Your task to perform on an android device: open sync settings in chrome Image 0: 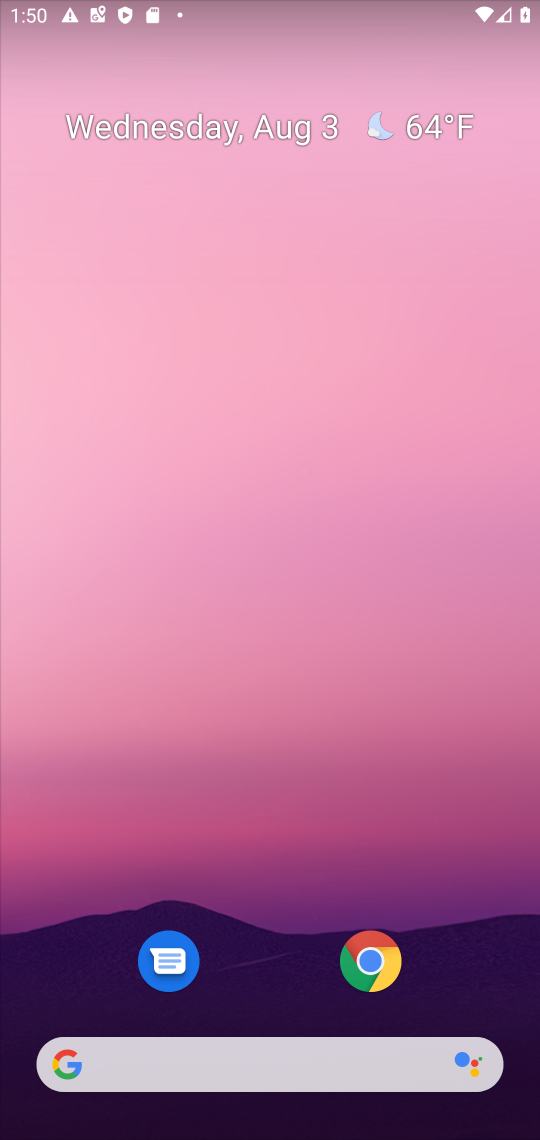
Step 0: click (373, 970)
Your task to perform on an android device: open sync settings in chrome Image 1: 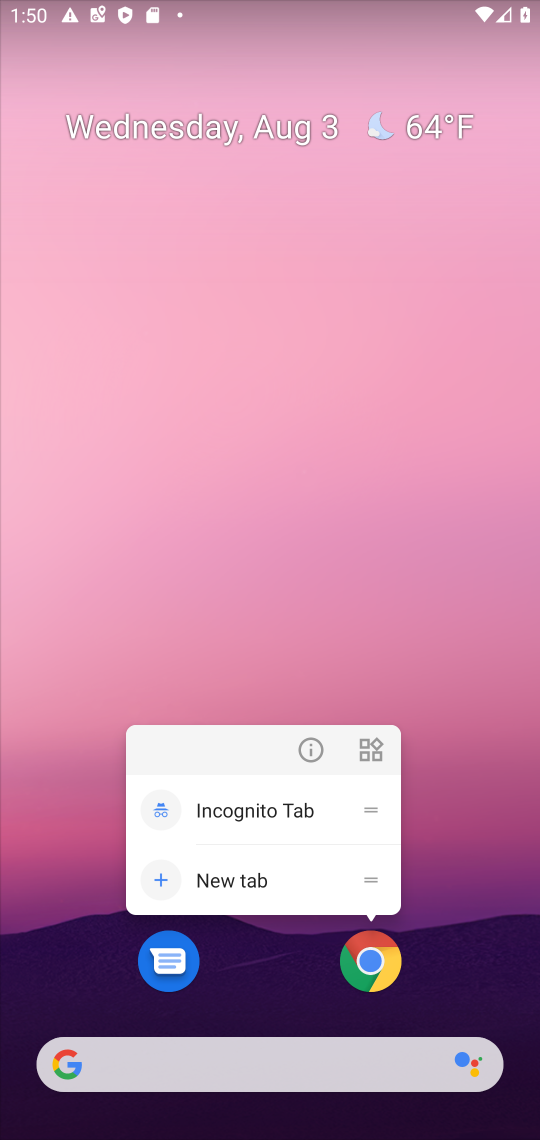
Step 1: click (373, 972)
Your task to perform on an android device: open sync settings in chrome Image 2: 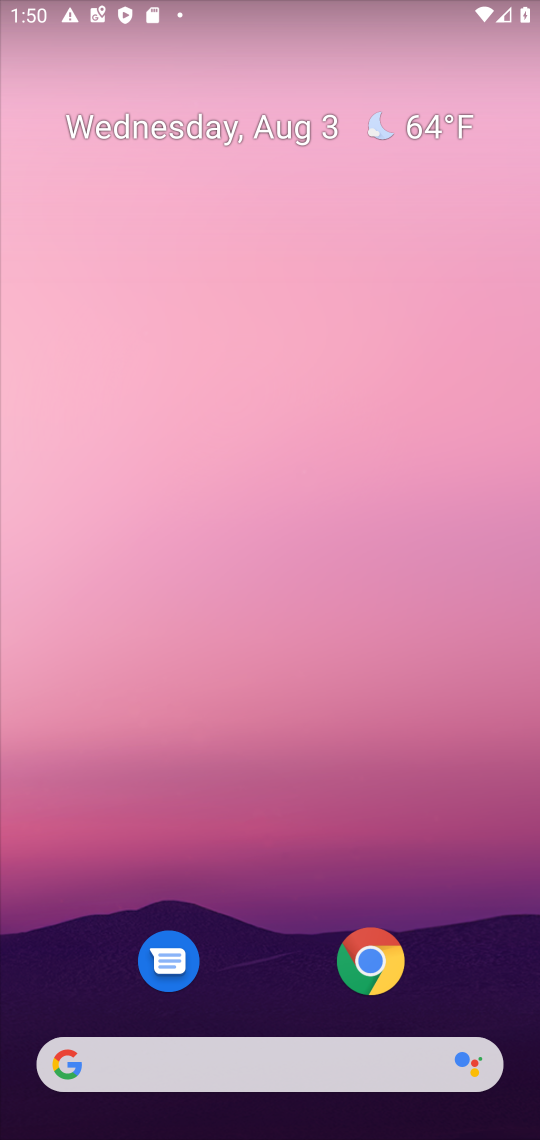
Step 2: click (372, 960)
Your task to perform on an android device: open sync settings in chrome Image 3: 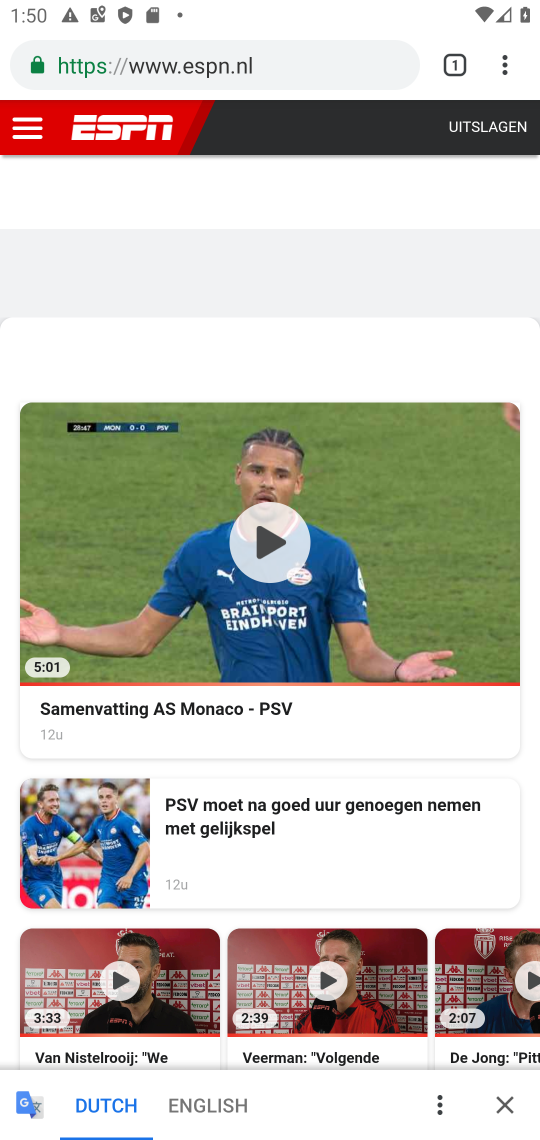
Step 3: click (499, 65)
Your task to perform on an android device: open sync settings in chrome Image 4: 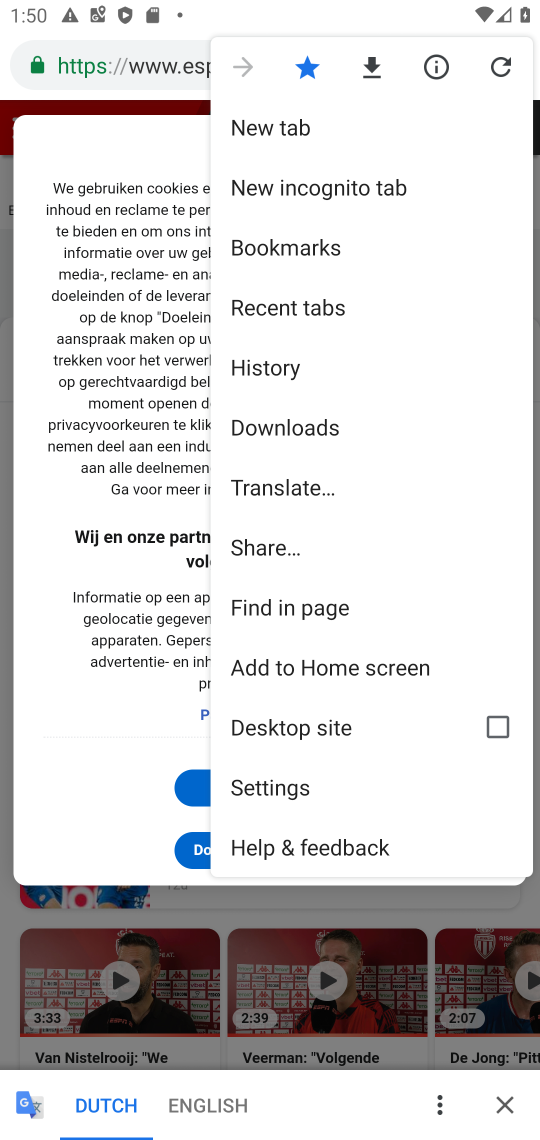
Step 4: click (247, 783)
Your task to perform on an android device: open sync settings in chrome Image 5: 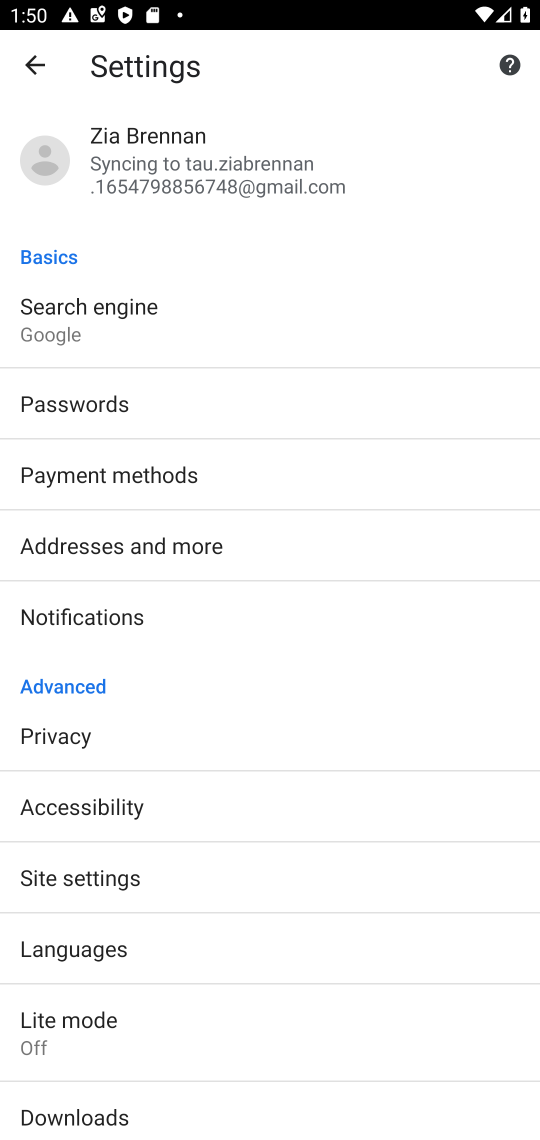
Step 5: click (191, 171)
Your task to perform on an android device: open sync settings in chrome Image 6: 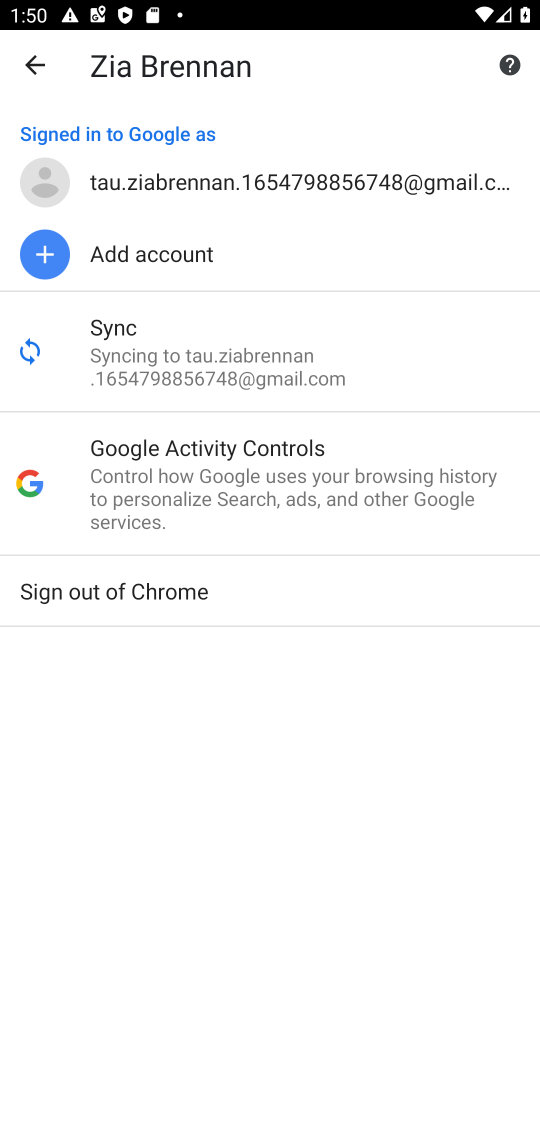
Step 6: click (181, 349)
Your task to perform on an android device: open sync settings in chrome Image 7: 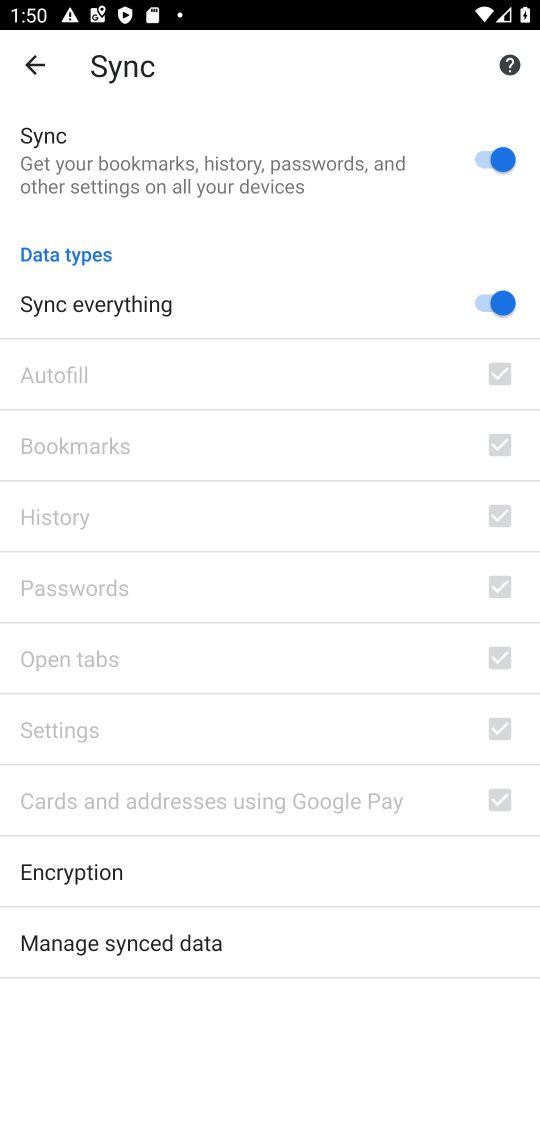
Step 7: task complete